Your task to perform on an android device: Go to Amazon Image 0: 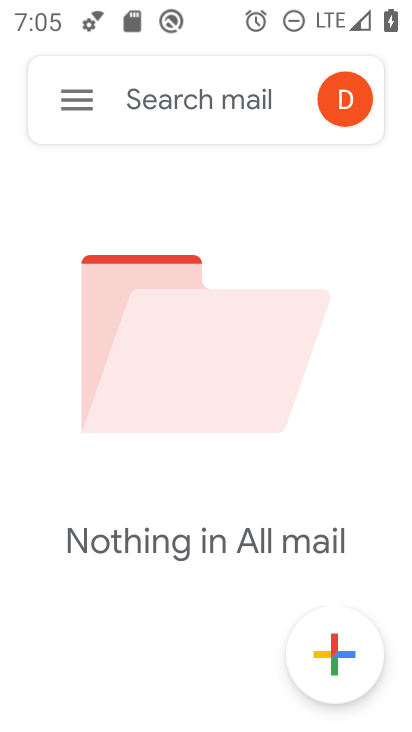
Step 0: press home button
Your task to perform on an android device: Go to Amazon Image 1: 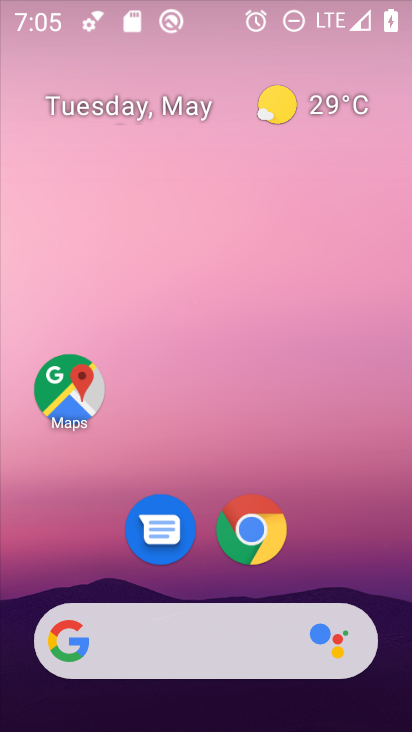
Step 1: drag from (392, 595) to (293, 26)
Your task to perform on an android device: Go to Amazon Image 2: 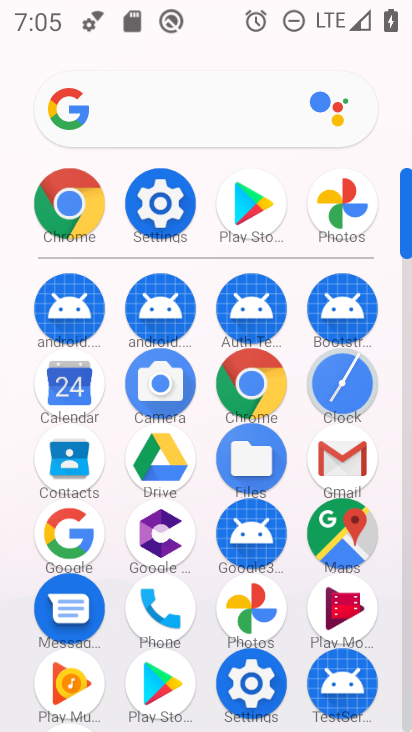
Step 2: click (99, 203)
Your task to perform on an android device: Go to Amazon Image 3: 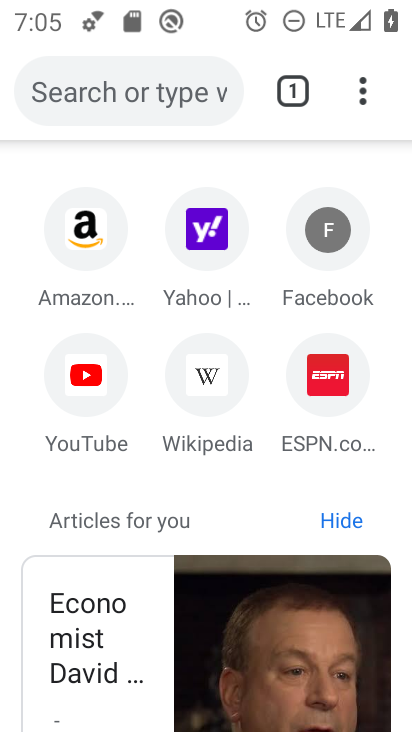
Step 3: click (82, 251)
Your task to perform on an android device: Go to Amazon Image 4: 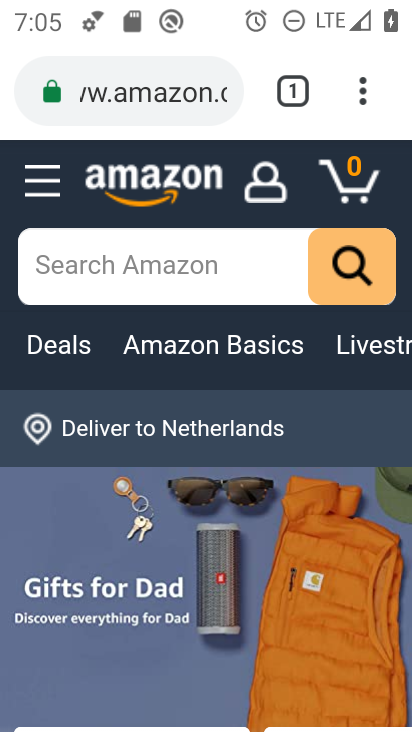
Step 4: task complete